Your task to perform on an android device: turn off javascript in the chrome app Image 0: 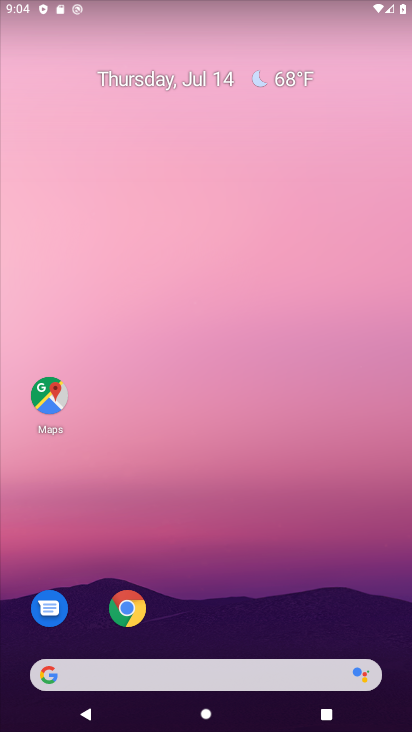
Step 0: click (122, 616)
Your task to perform on an android device: turn off javascript in the chrome app Image 1: 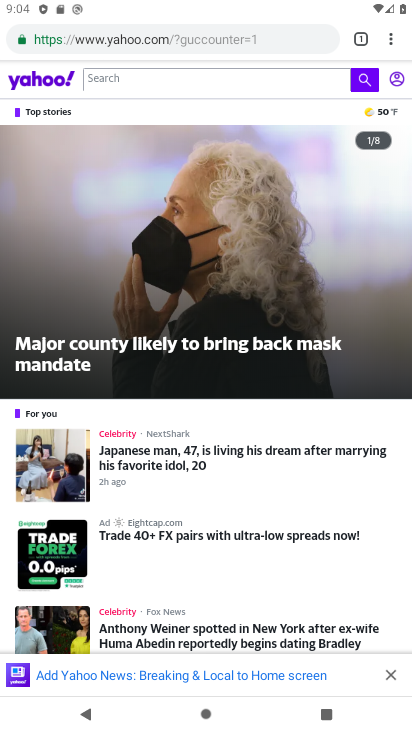
Step 1: drag from (394, 41) to (254, 469)
Your task to perform on an android device: turn off javascript in the chrome app Image 2: 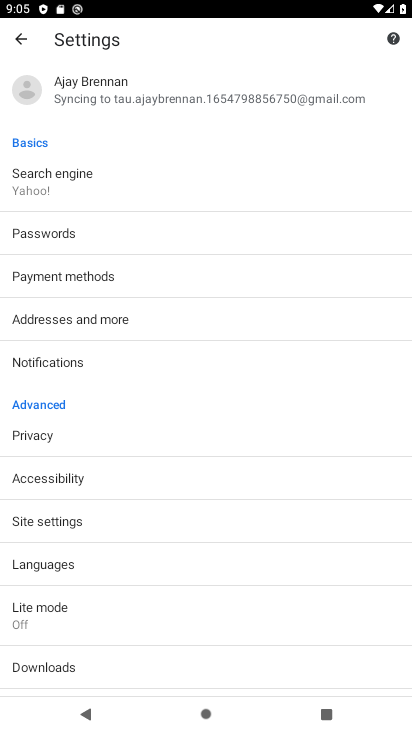
Step 2: click (74, 528)
Your task to perform on an android device: turn off javascript in the chrome app Image 3: 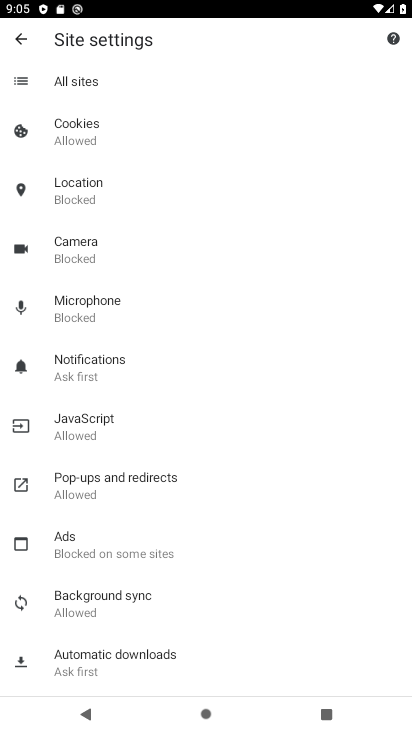
Step 3: click (102, 423)
Your task to perform on an android device: turn off javascript in the chrome app Image 4: 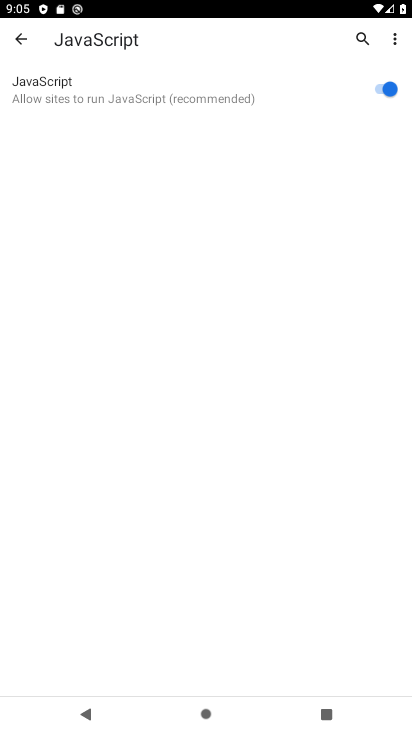
Step 4: click (388, 84)
Your task to perform on an android device: turn off javascript in the chrome app Image 5: 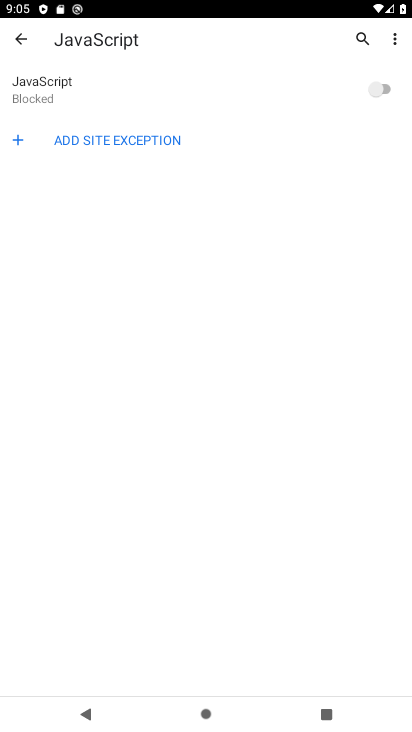
Step 5: task complete